Your task to perform on an android device: Open Google Maps Image 0: 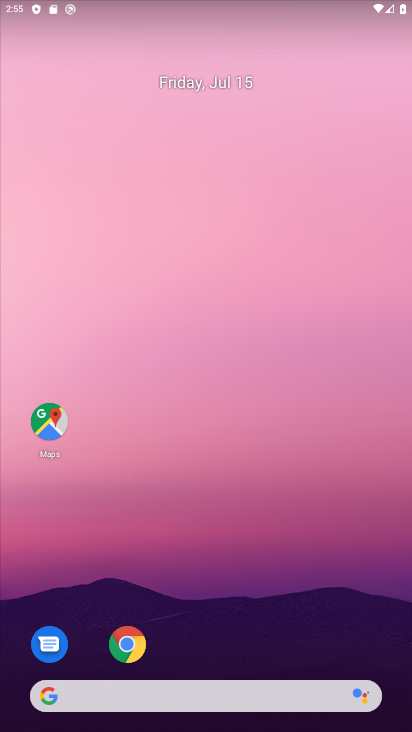
Step 0: click (56, 416)
Your task to perform on an android device: Open Google Maps Image 1: 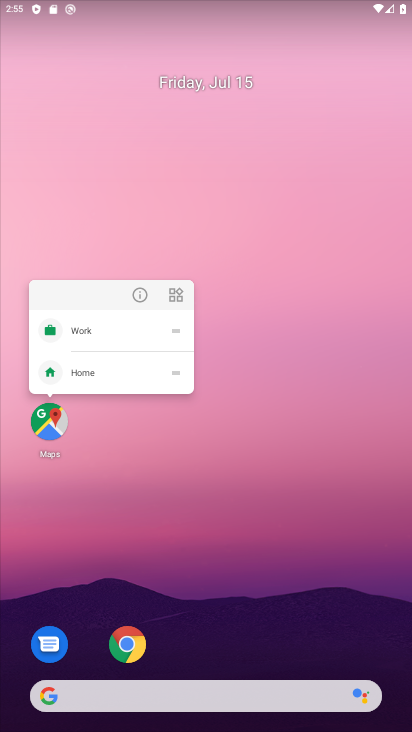
Step 1: click (49, 425)
Your task to perform on an android device: Open Google Maps Image 2: 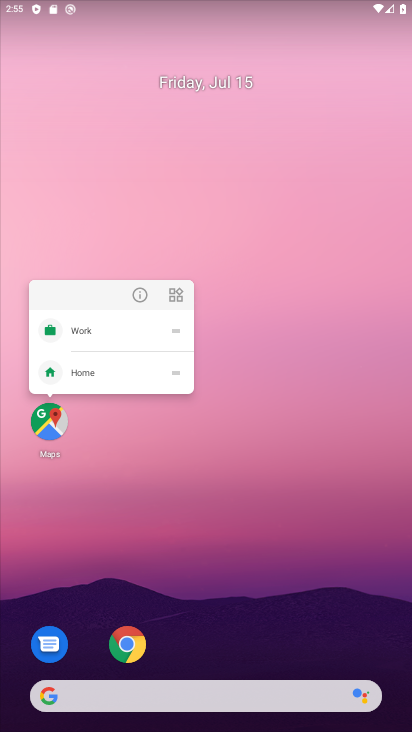
Step 2: click (49, 426)
Your task to perform on an android device: Open Google Maps Image 3: 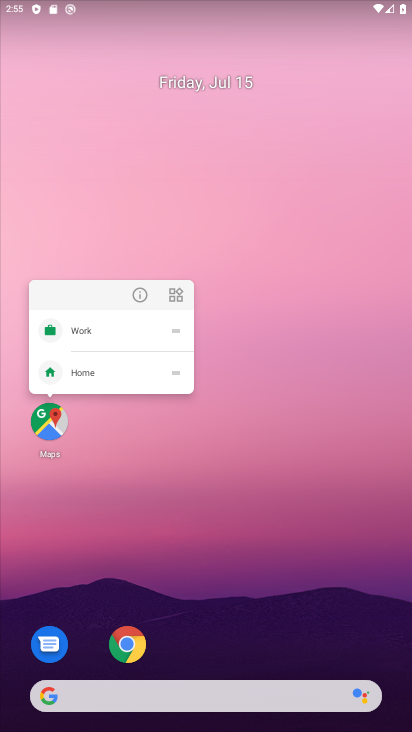
Step 3: click (49, 426)
Your task to perform on an android device: Open Google Maps Image 4: 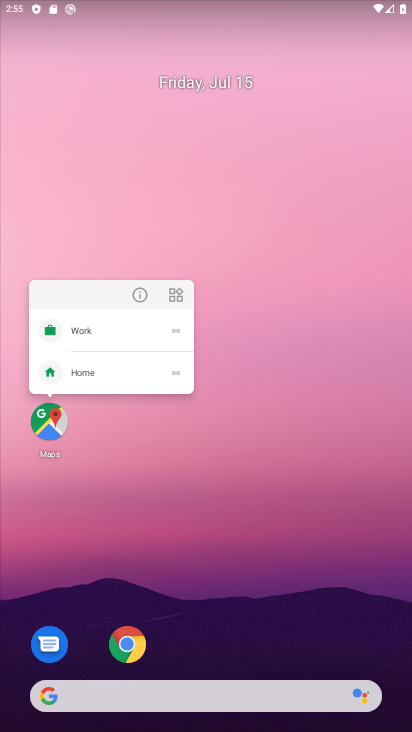
Step 4: click (47, 421)
Your task to perform on an android device: Open Google Maps Image 5: 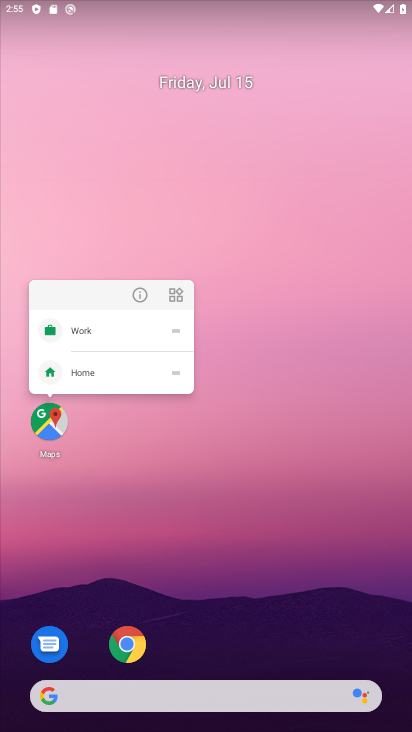
Step 5: click (47, 421)
Your task to perform on an android device: Open Google Maps Image 6: 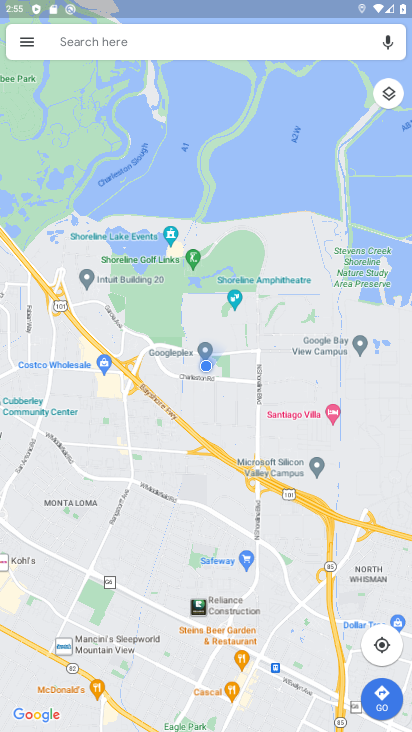
Step 6: task complete